Your task to perform on an android device: Search for the best 100% cotton t-shirts Image 0: 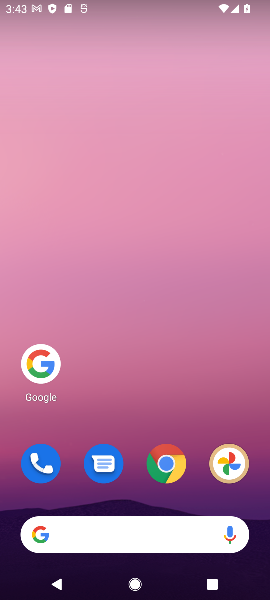
Step 0: click (45, 367)
Your task to perform on an android device: Search for the best 100% cotton t-shirts Image 1: 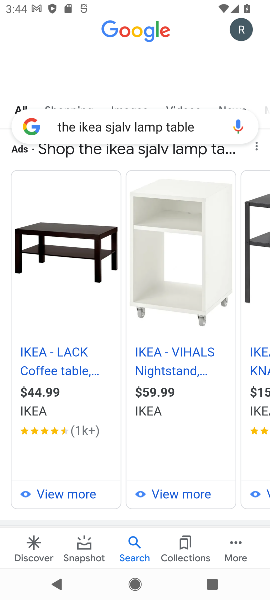
Step 1: click (157, 122)
Your task to perform on an android device: Search for the best 100% cotton t-shirts Image 2: 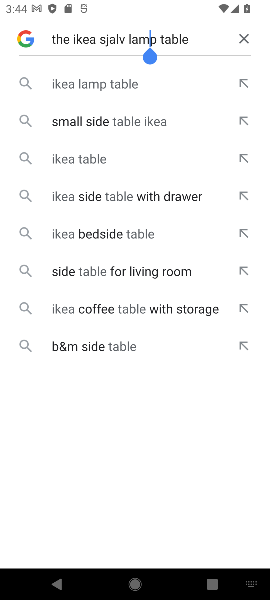
Step 2: click (241, 39)
Your task to perform on an android device: Search for the best 100% cotton t-shirts Image 3: 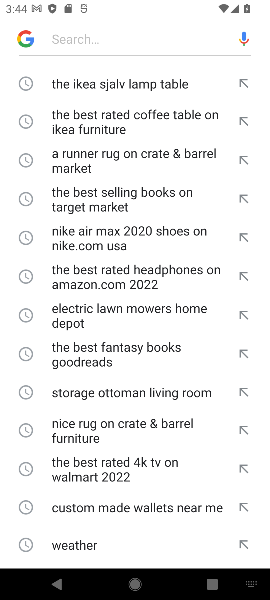
Step 3: click (150, 32)
Your task to perform on an android device: Search for the best 100% cotton t-shirts Image 4: 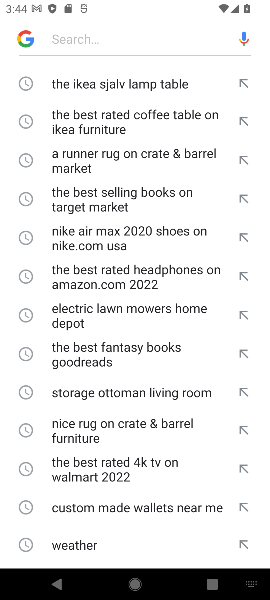
Step 4: type " the best 100% cotton t-shirts "
Your task to perform on an android device: Search for the best 100% cotton t-shirts Image 5: 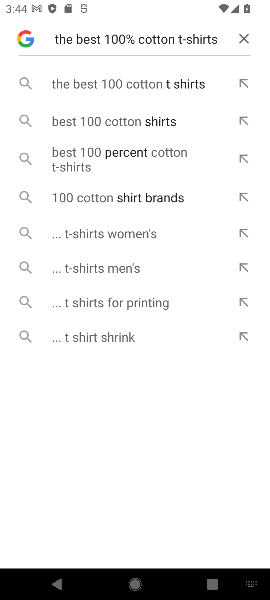
Step 5: click (103, 85)
Your task to perform on an android device: Search for the best 100% cotton t-shirts Image 6: 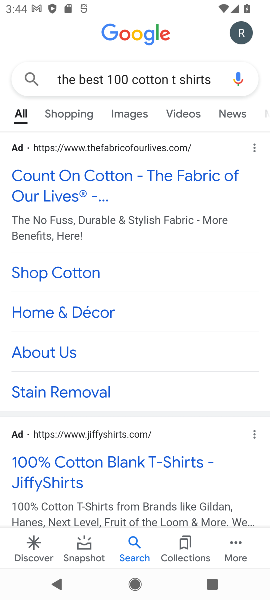
Step 6: task complete